Your task to perform on an android device: Go to location settings Image 0: 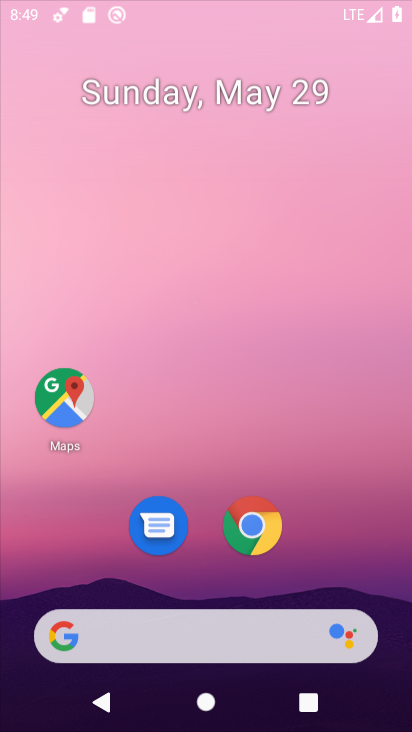
Step 0: press home button
Your task to perform on an android device: Go to location settings Image 1: 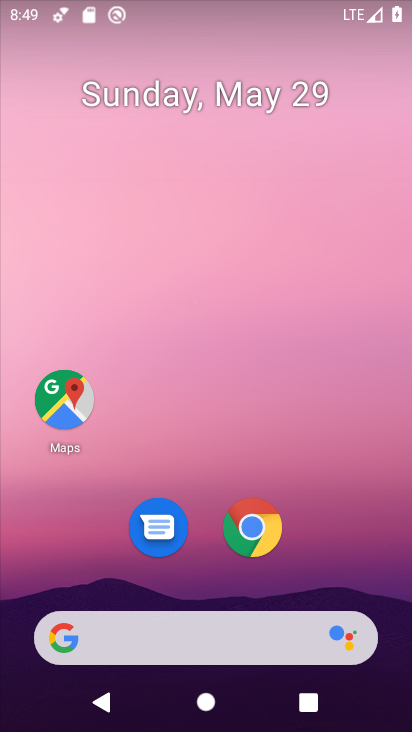
Step 1: drag from (196, 582) to (218, 56)
Your task to perform on an android device: Go to location settings Image 2: 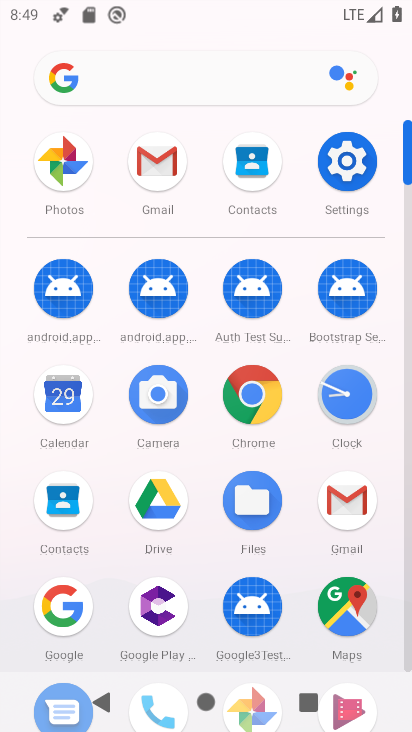
Step 2: click (345, 153)
Your task to perform on an android device: Go to location settings Image 3: 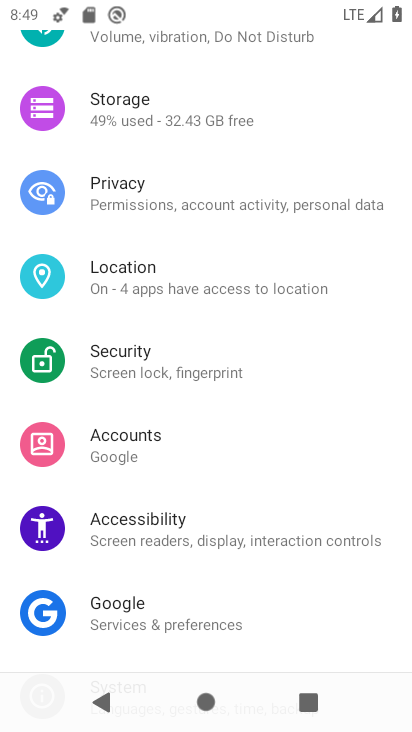
Step 3: click (169, 270)
Your task to perform on an android device: Go to location settings Image 4: 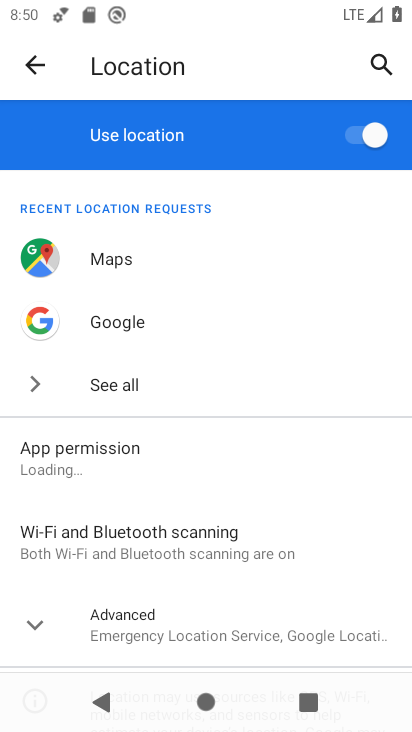
Step 4: click (34, 619)
Your task to perform on an android device: Go to location settings Image 5: 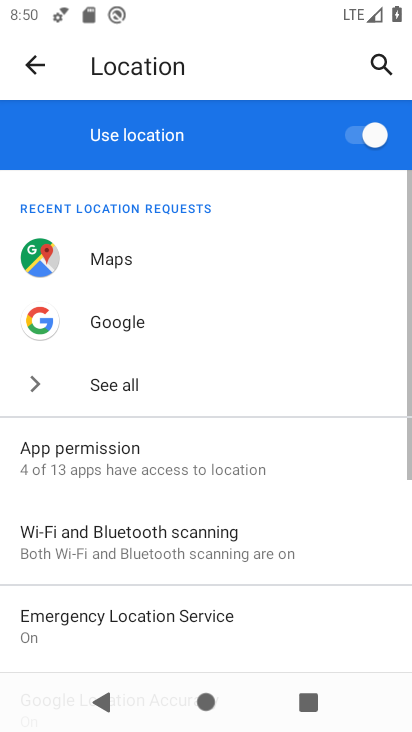
Step 5: task complete